Your task to perform on an android device: open app "Upside-Cash back on gas & food" (install if not already installed), go to login, and select forgot password Image 0: 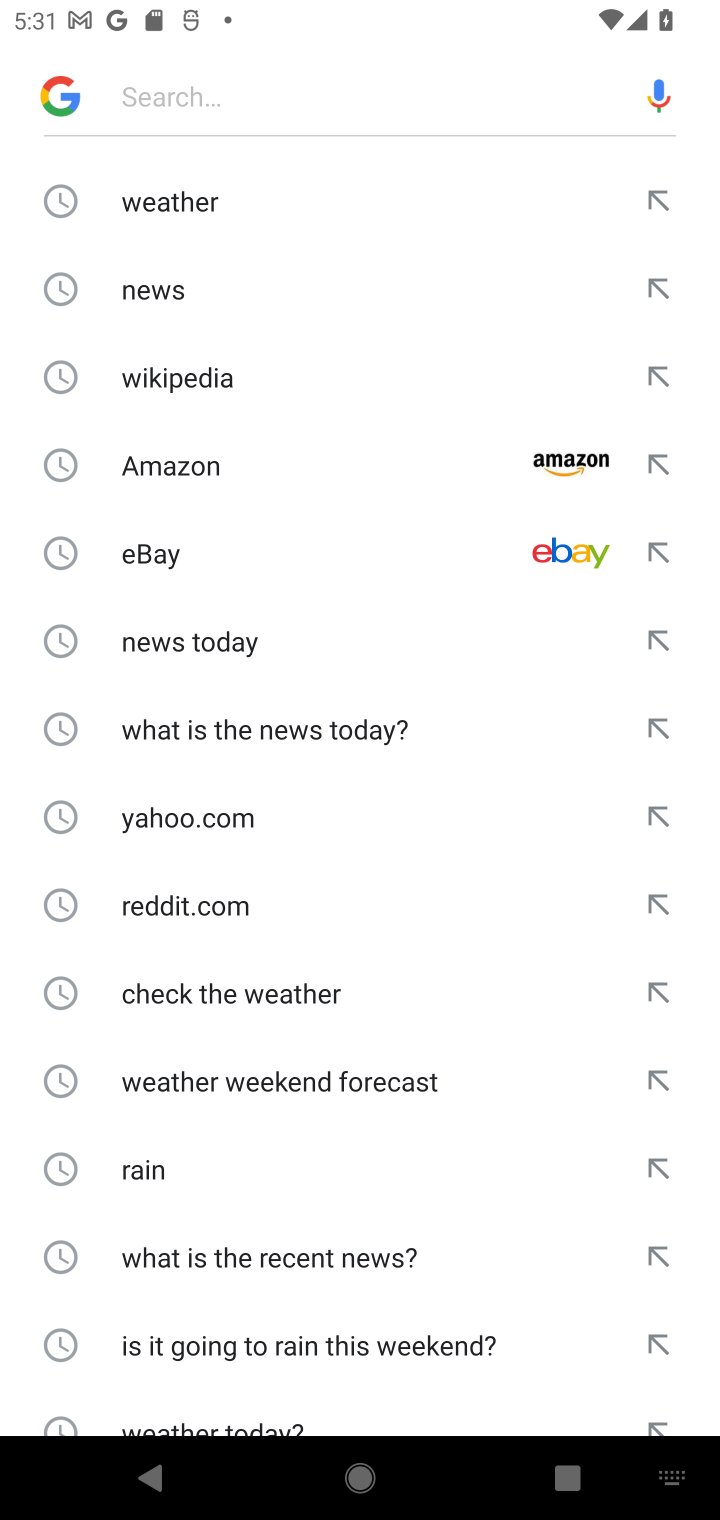
Step 0: press home button
Your task to perform on an android device: open app "Upside-Cash back on gas & food" (install if not already installed), go to login, and select forgot password Image 1: 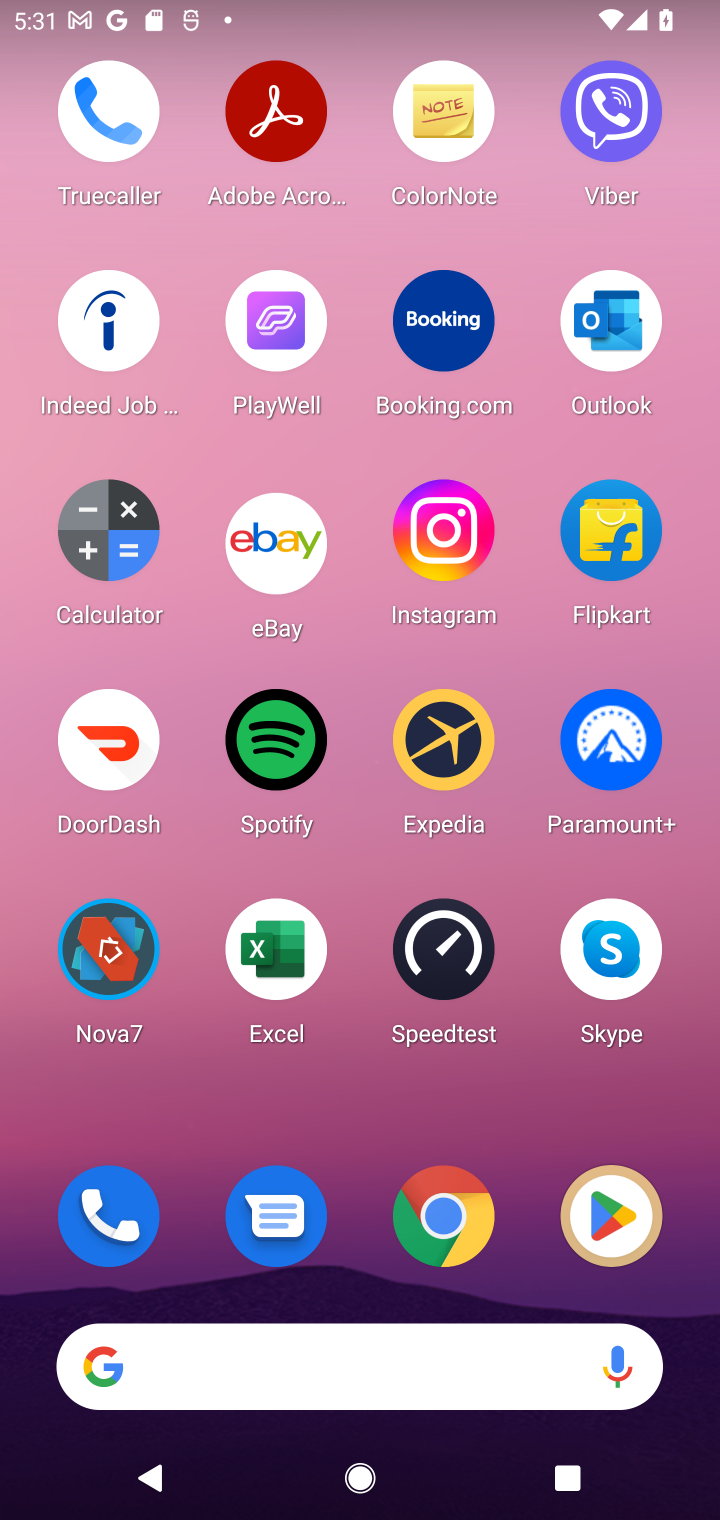
Step 1: click (615, 1217)
Your task to perform on an android device: open app "Upside-Cash back on gas & food" (install if not already installed), go to login, and select forgot password Image 2: 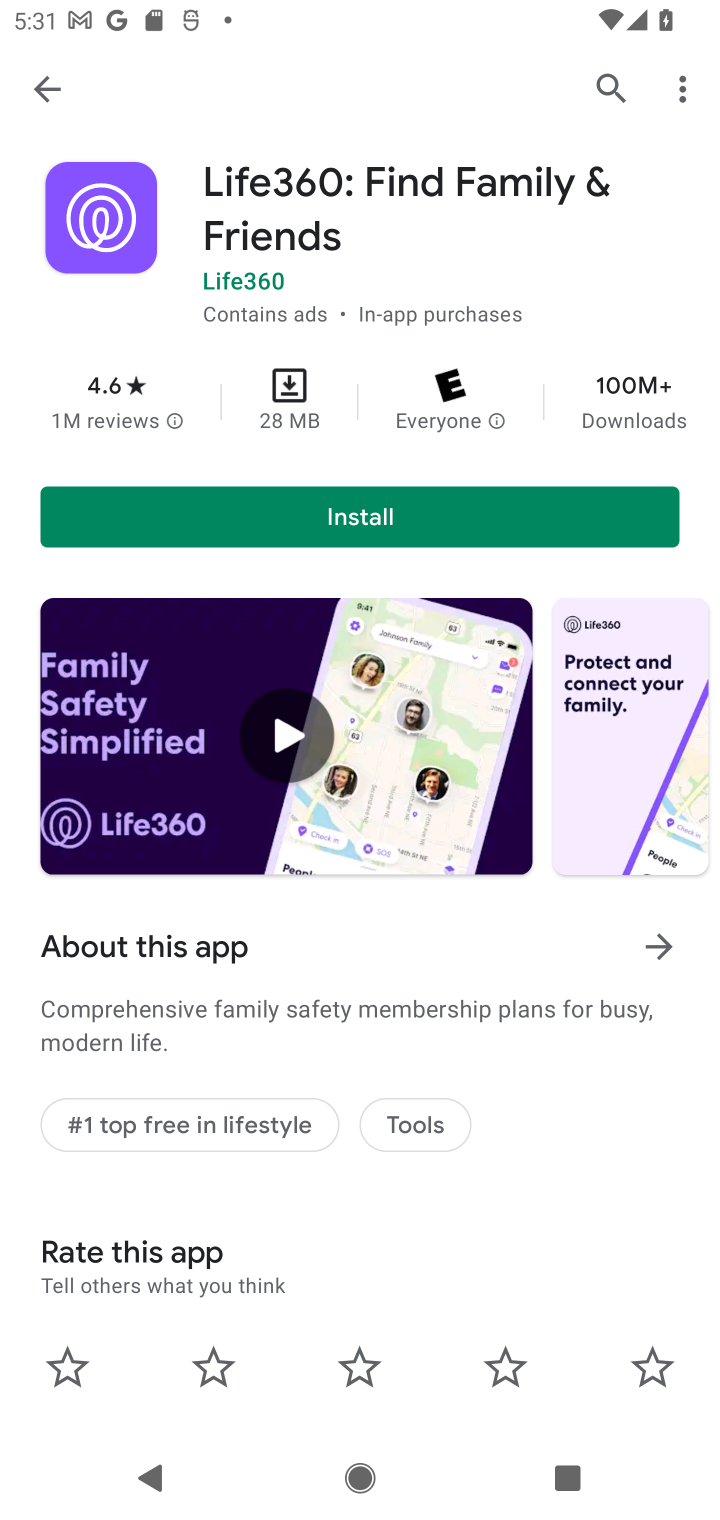
Step 2: click (605, 81)
Your task to perform on an android device: open app "Upside-Cash back on gas & food" (install if not already installed), go to login, and select forgot password Image 3: 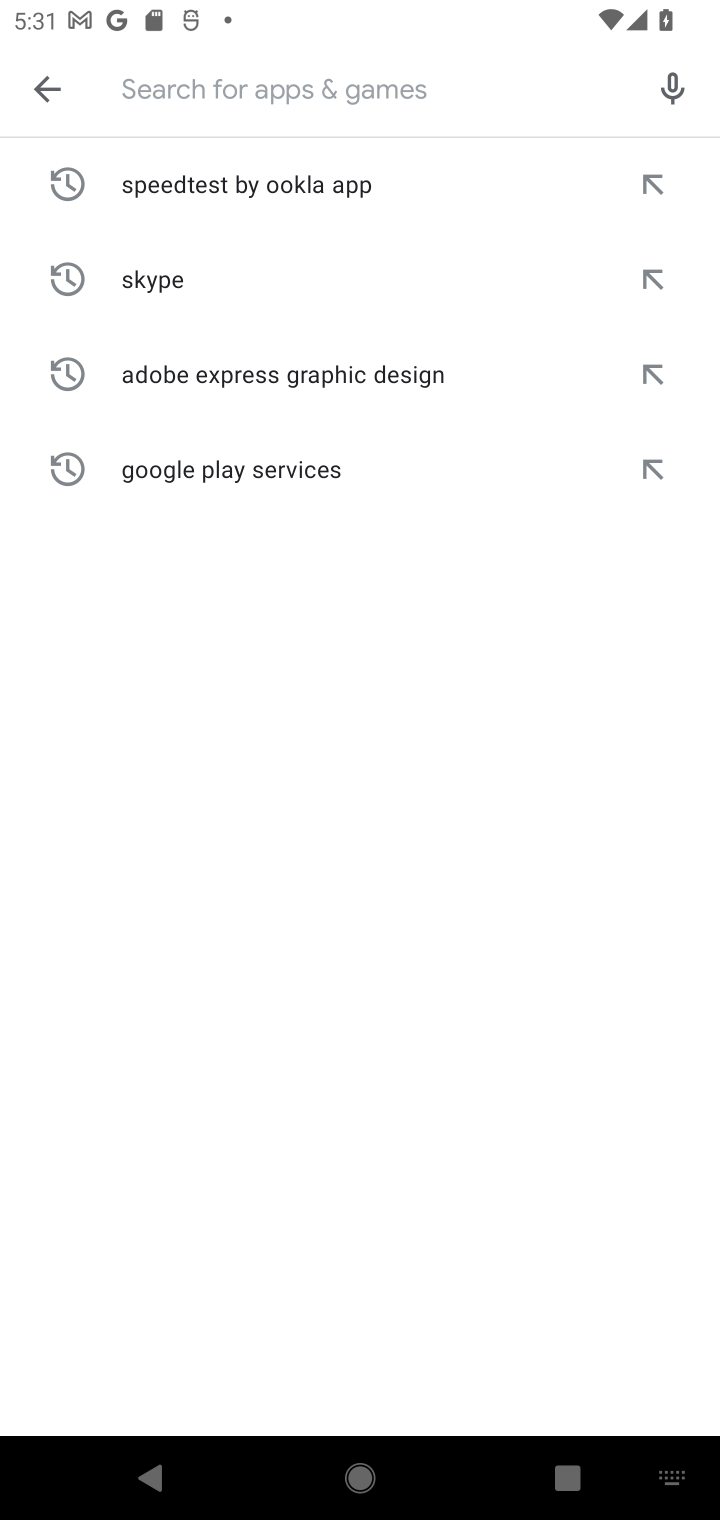
Step 3: type "Upside-Cash back on gas & food"
Your task to perform on an android device: open app "Upside-Cash back on gas & food" (install if not already installed), go to login, and select forgot password Image 4: 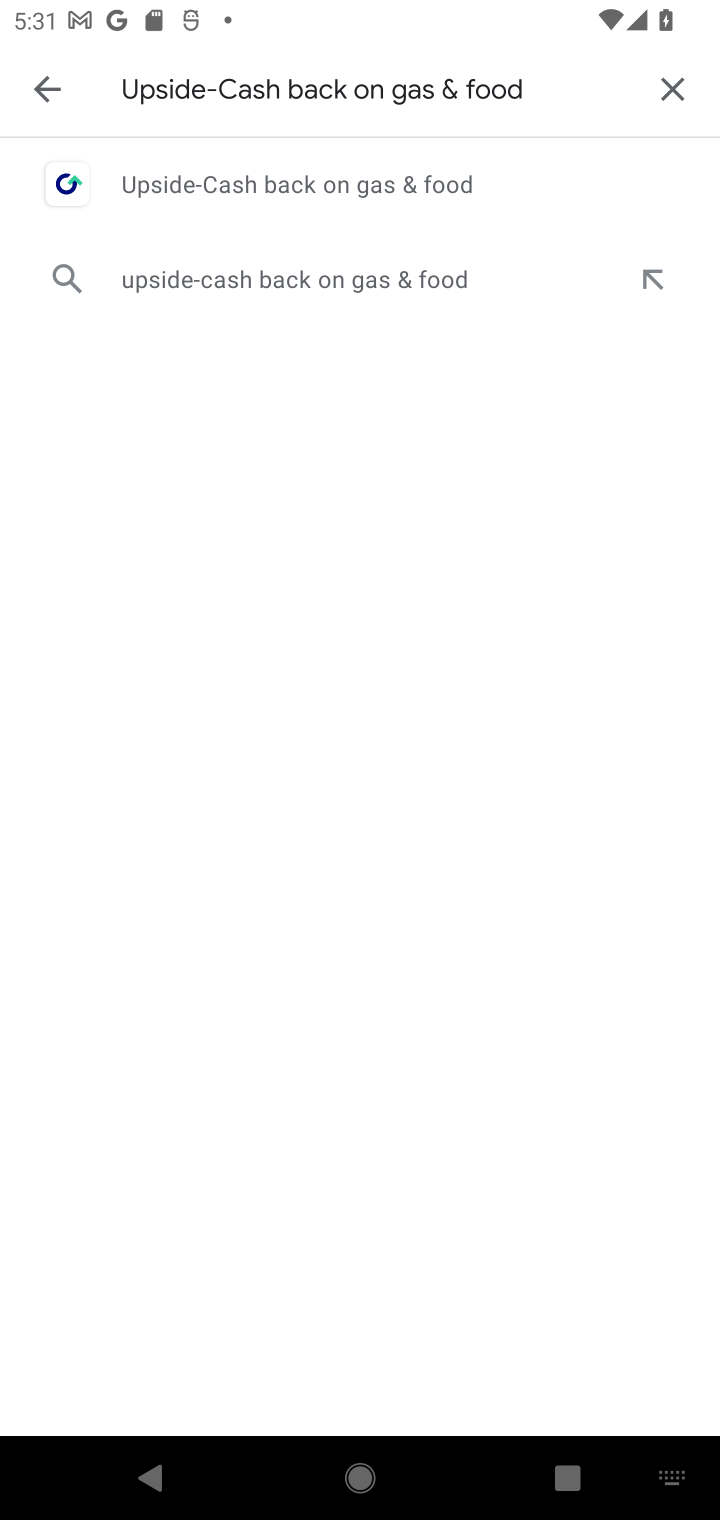
Step 4: click (250, 188)
Your task to perform on an android device: open app "Upside-Cash back on gas & food" (install if not already installed), go to login, and select forgot password Image 5: 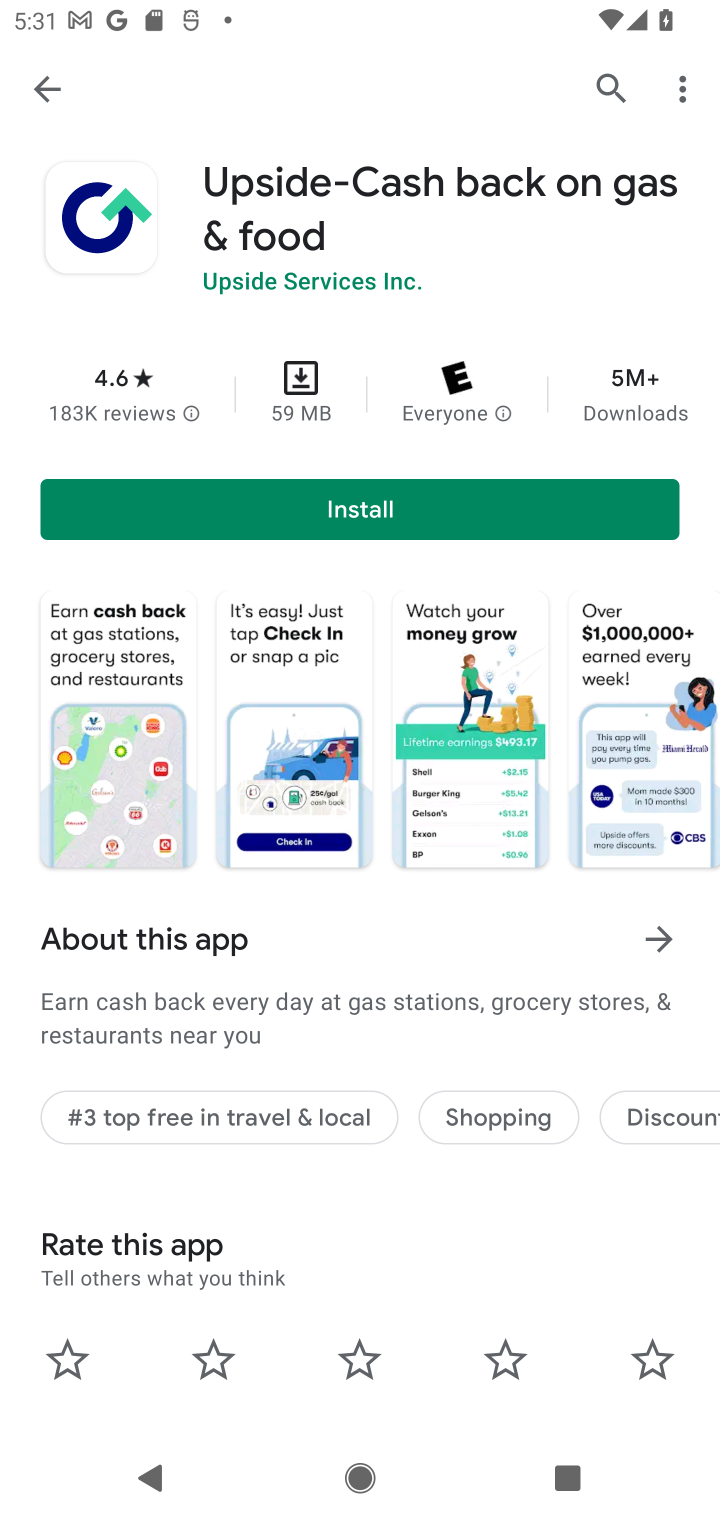
Step 5: click (339, 508)
Your task to perform on an android device: open app "Upside-Cash back on gas & food" (install if not already installed), go to login, and select forgot password Image 6: 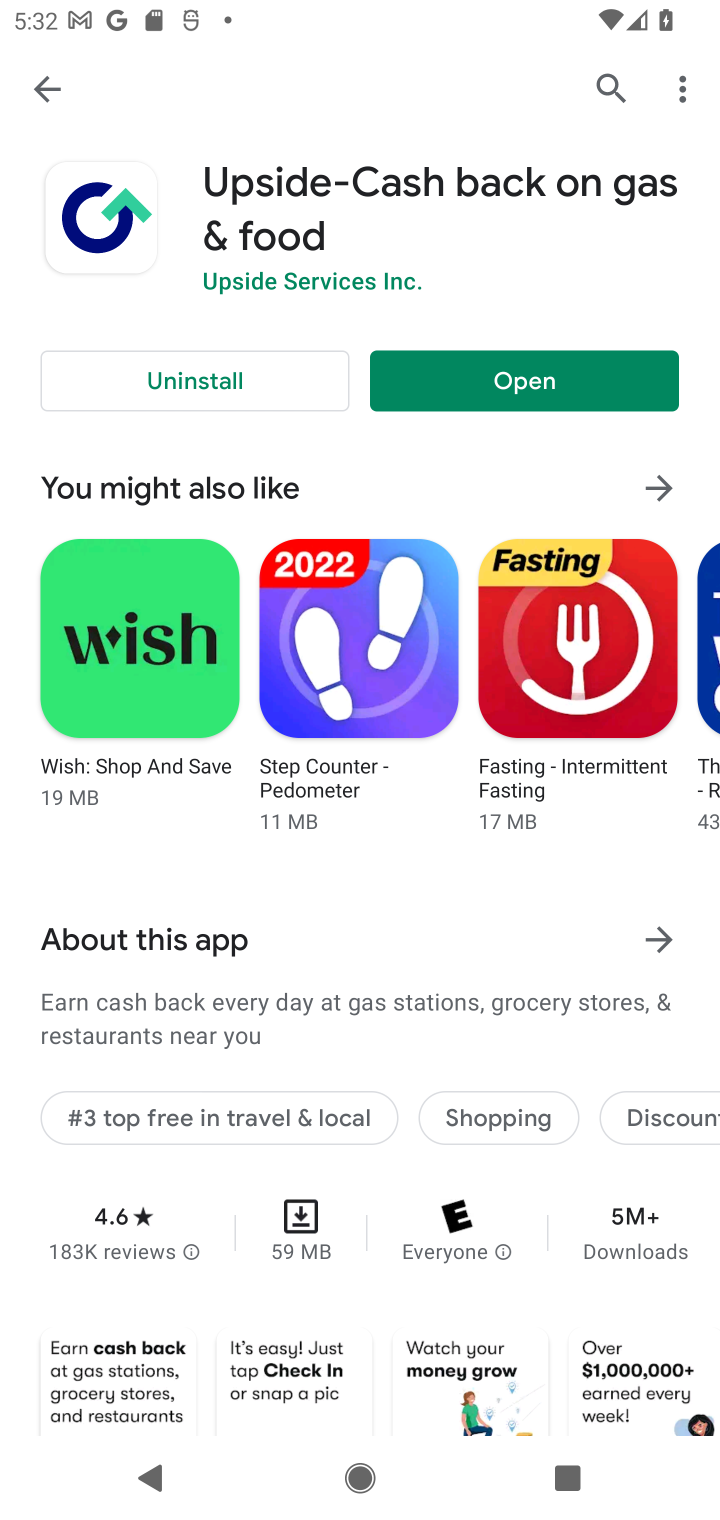
Step 6: click (518, 377)
Your task to perform on an android device: open app "Upside-Cash back on gas & food" (install if not already installed), go to login, and select forgot password Image 7: 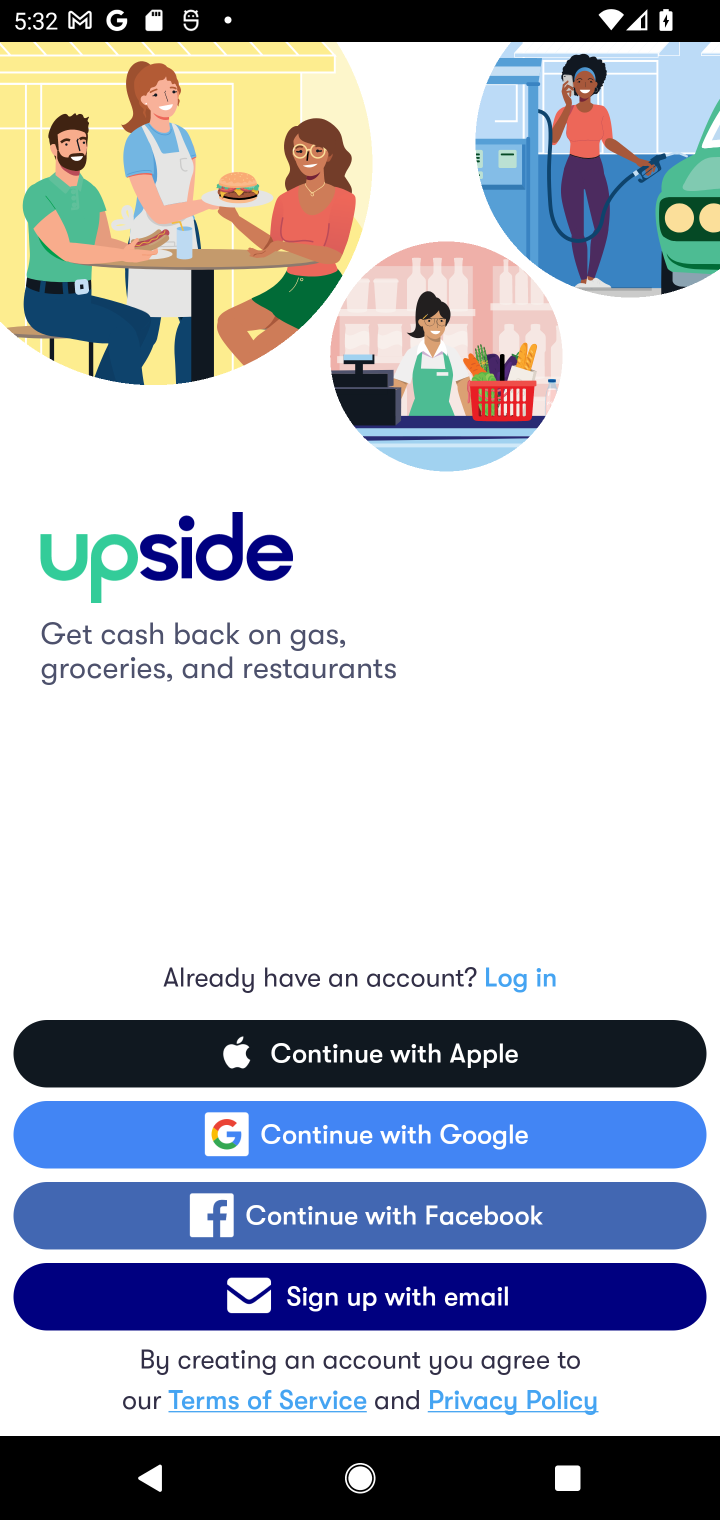
Step 7: click (370, 1299)
Your task to perform on an android device: open app "Upside-Cash back on gas & food" (install if not already installed), go to login, and select forgot password Image 8: 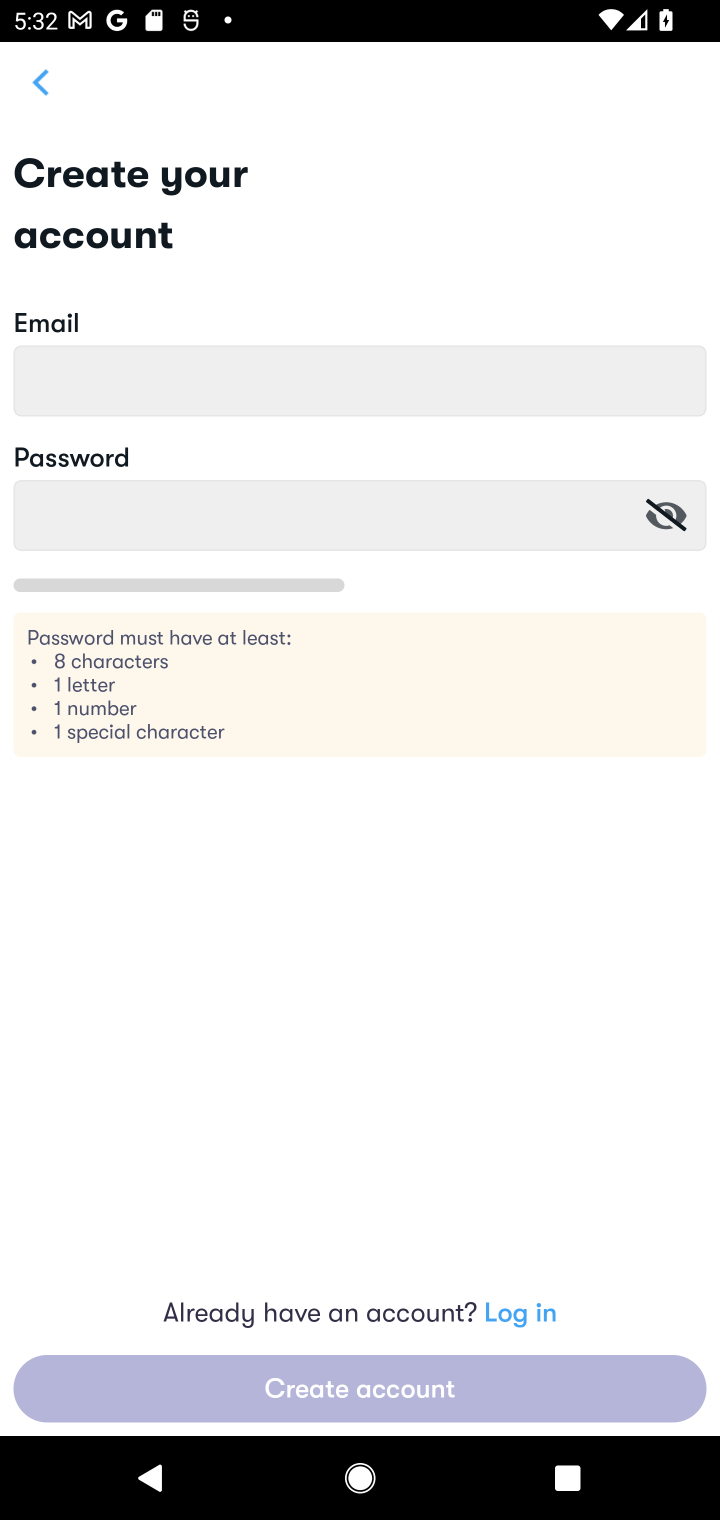
Step 8: click (510, 1315)
Your task to perform on an android device: open app "Upside-Cash back on gas & food" (install if not already installed), go to login, and select forgot password Image 9: 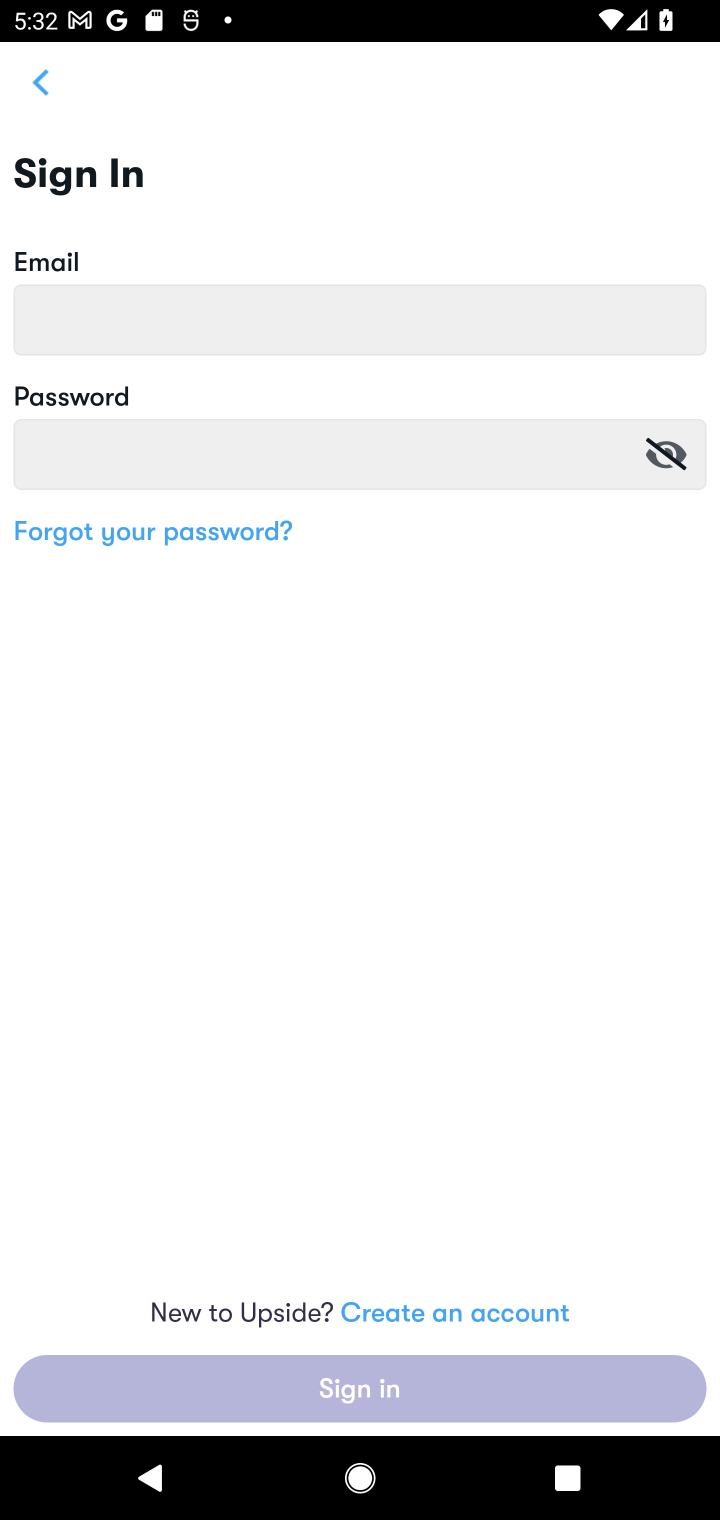
Step 9: click (108, 538)
Your task to perform on an android device: open app "Upside-Cash back on gas & food" (install if not already installed), go to login, and select forgot password Image 10: 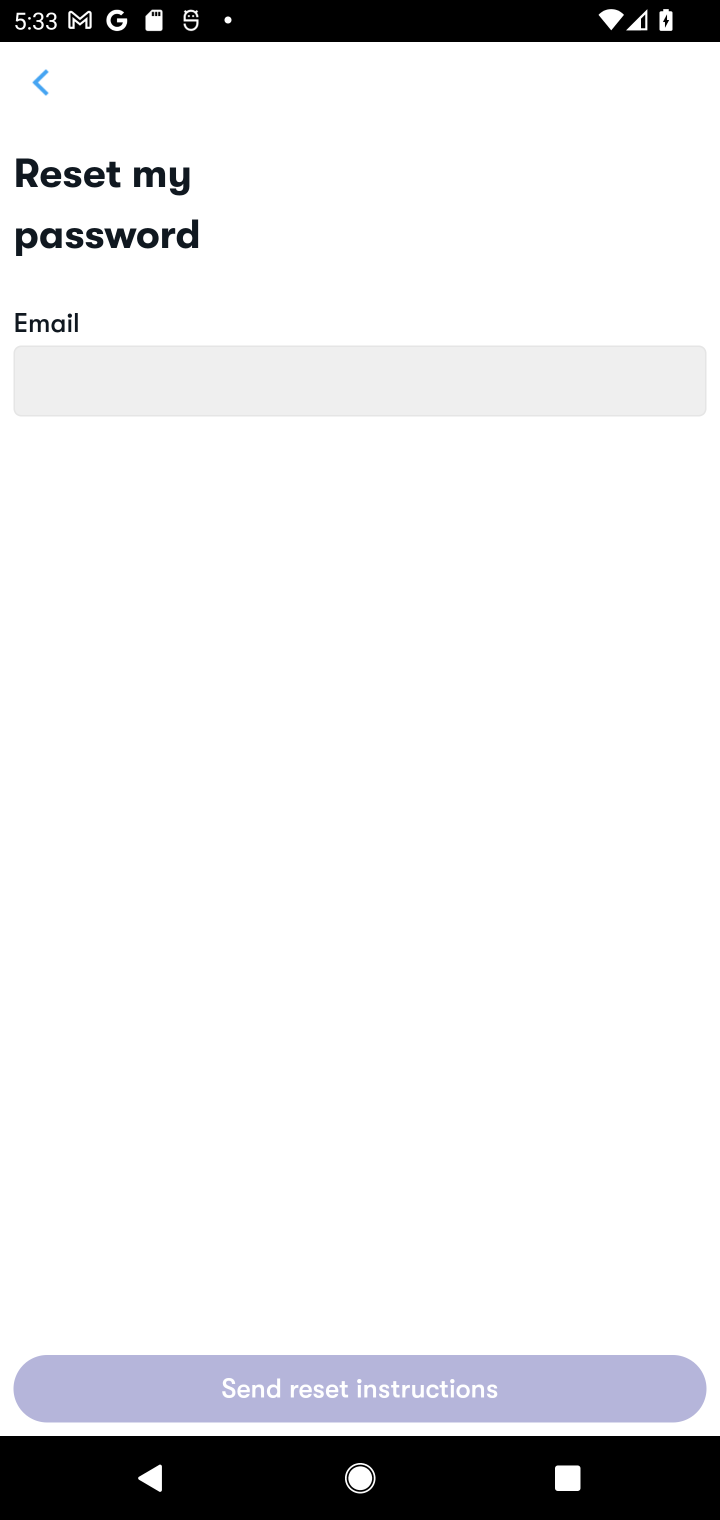
Step 10: task complete